Your task to perform on an android device: What is the recent news? Image 0: 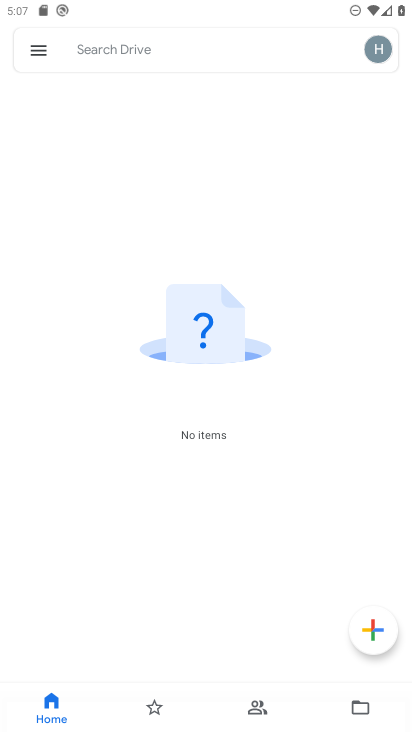
Step 0: press home button
Your task to perform on an android device: What is the recent news? Image 1: 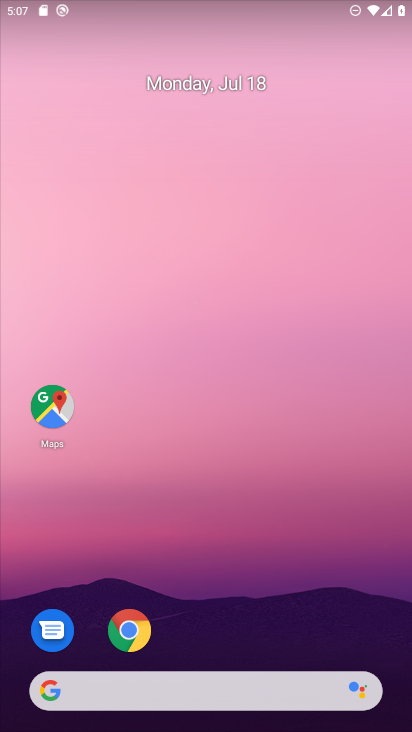
Step 1: task complete